Your task to perform on an android device: Check the news Image 0: 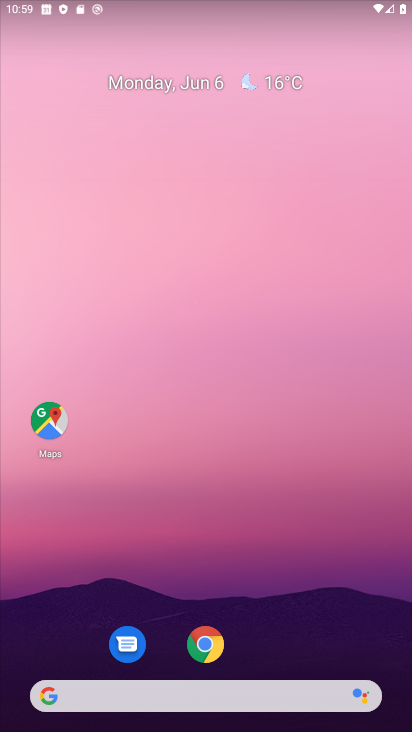
Step 0: click (264, 685)
Your task to perform on an android device: Check the news Image 1: 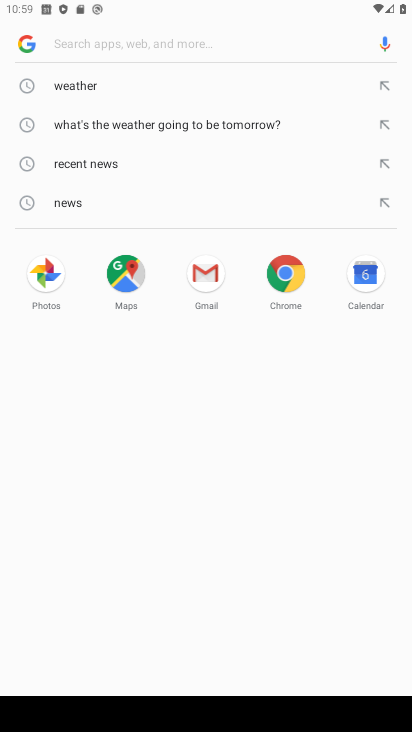
Step 1: click (80, 198)
Your task to perform on an android device: Check the news Image 2: 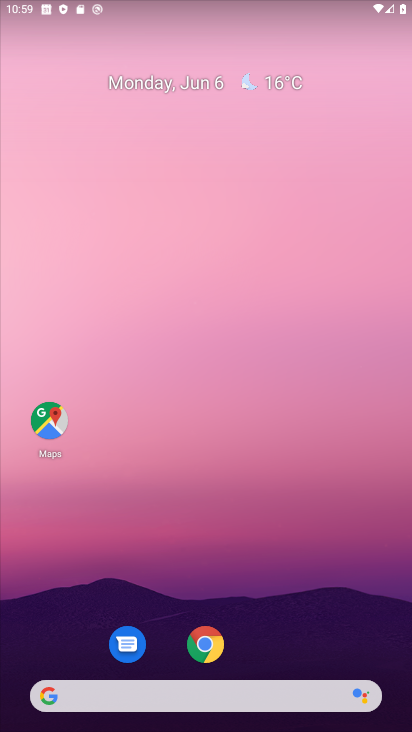
Step 2: click (244, 692)
Your task to perform on an android device: Check the news Image 3: 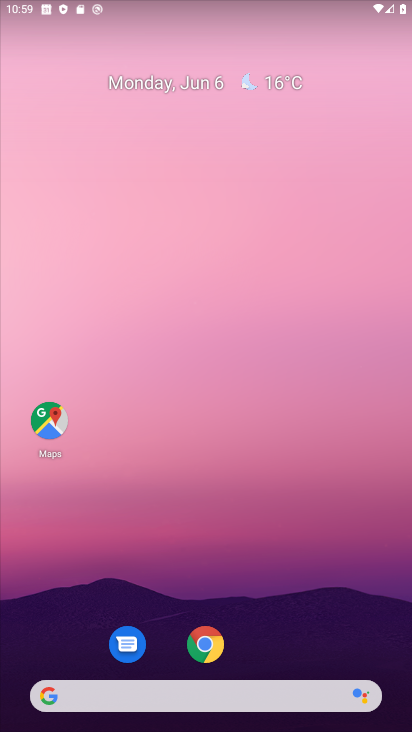
Step 3: click (236, 693)
Your task to perform on an android device: Check the news Image 4: 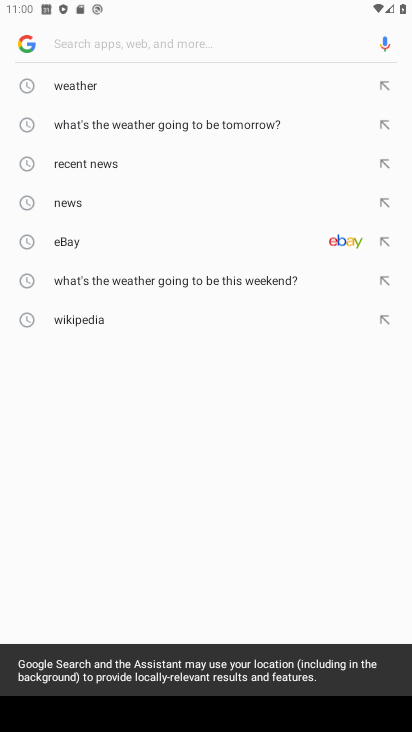
Step 4: click (87, 202)
Your task to perform on an android device: Check the news Image 5: 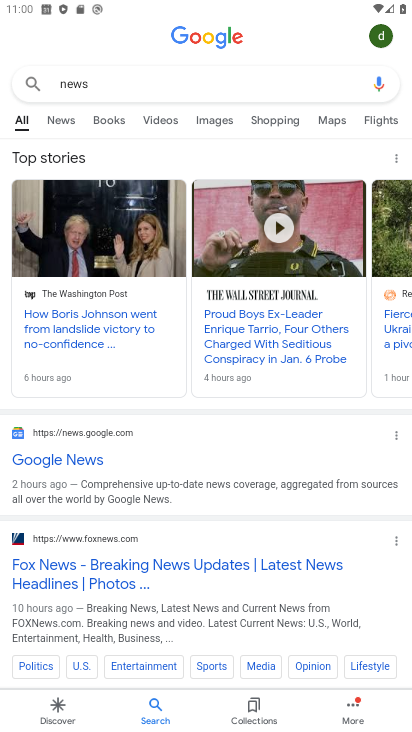
Step 5: task complete